Your task to perform on an android device: Toggle the flashlight Image 0: 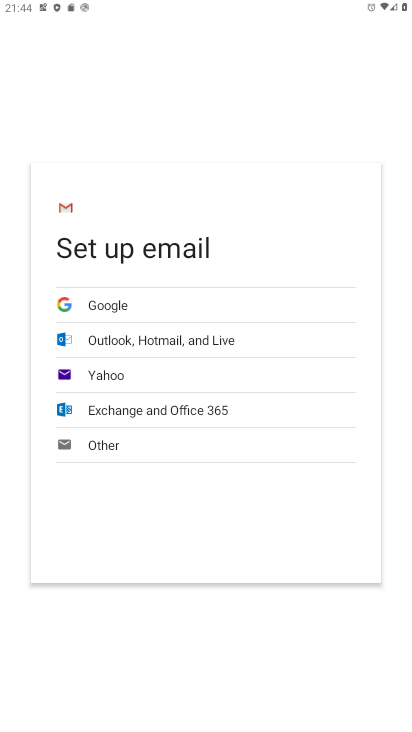
Step 0: drag from (211, 611) to (350, 87)
Your task to perform on an android device: Toggle the flashlight Image 1: 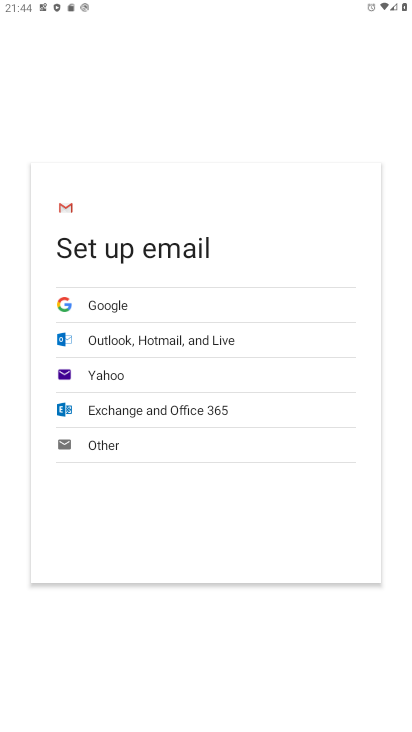
Step 1: press home button
Your task to perform on an android device: Toggle the flashlight Image 2: 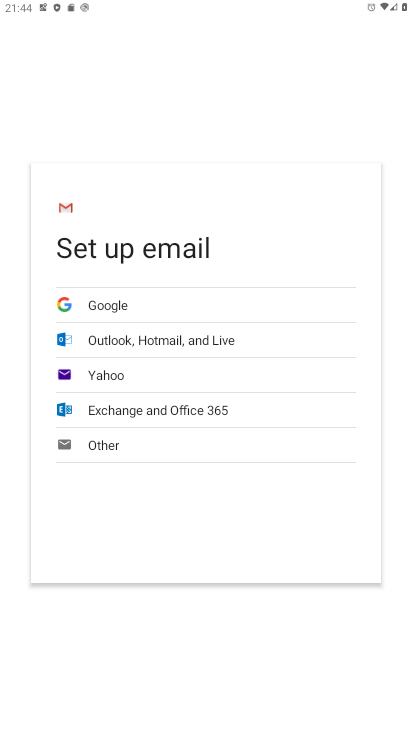
Step 2: press home button
Your task to perform on an android device: Toggle the flashlight Image 3: 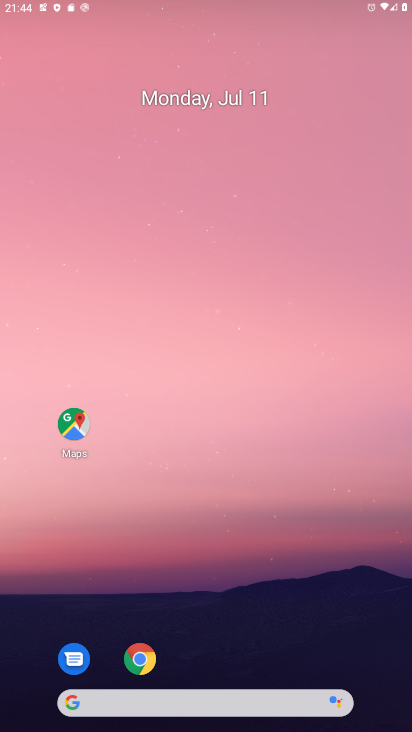
Step 3: drag from (176, 619) to (342, 10)
Your task to perform on an android device: Toggle the flashlight Image 4: 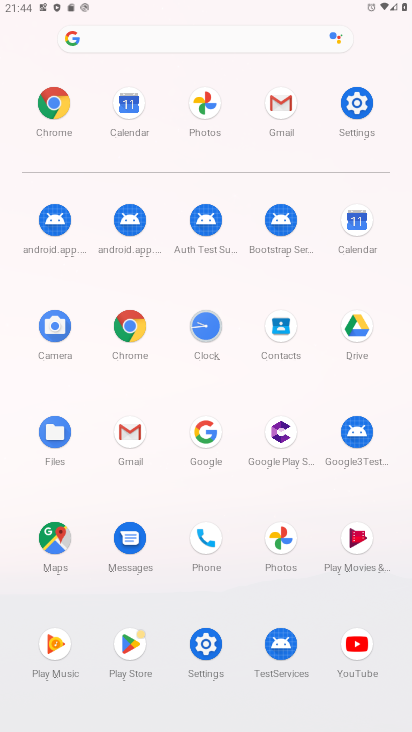
Step 4: click (201, 652)
Your task to perform on an android device: Toggle the flashlight Image 5: 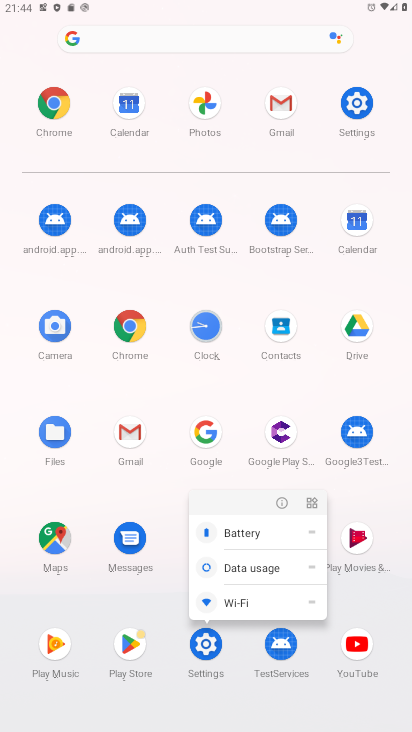
Step 5: click (282, 501)
Your task to perform on an android device: Toggle the flashlight Image 6: 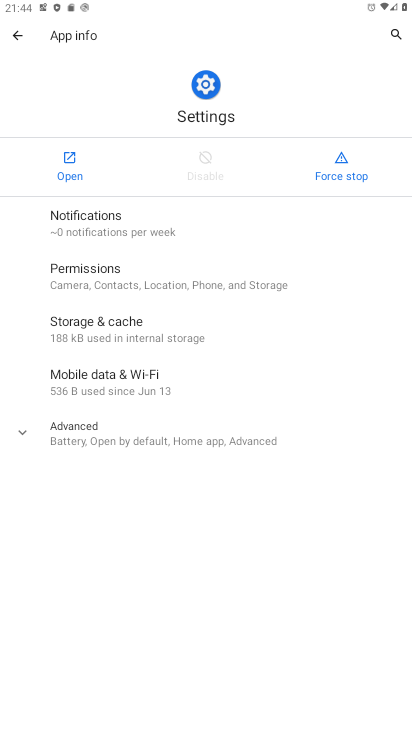
Step 6: click (72, 158)
Your task to perform on an android device: Toggle the flashlight Image 7: 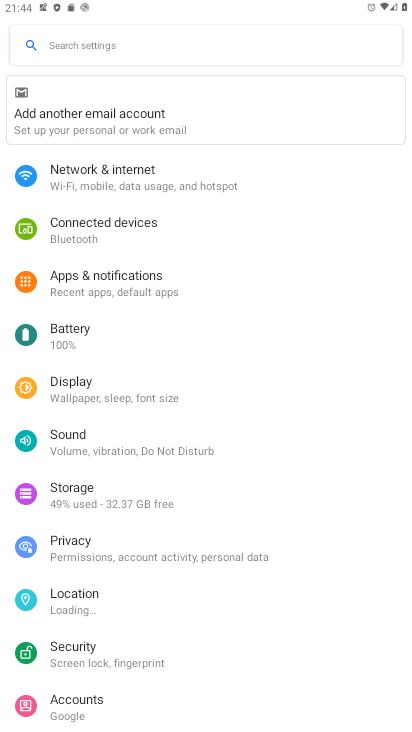
Step 7: drag from (248, 685) to (271, 238)
Your task to perform on an android device: Toggle the flashlight Image 8: 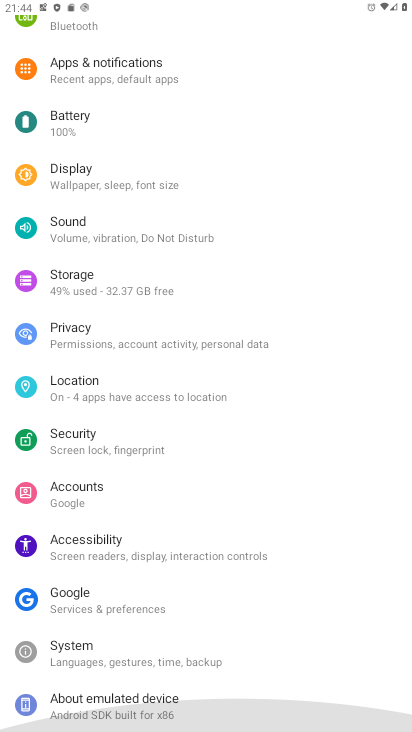
Step 8: drag from (278, 201) to (316, 724)
Your task to perform on an android device: Toggle the flashlight Image 9: 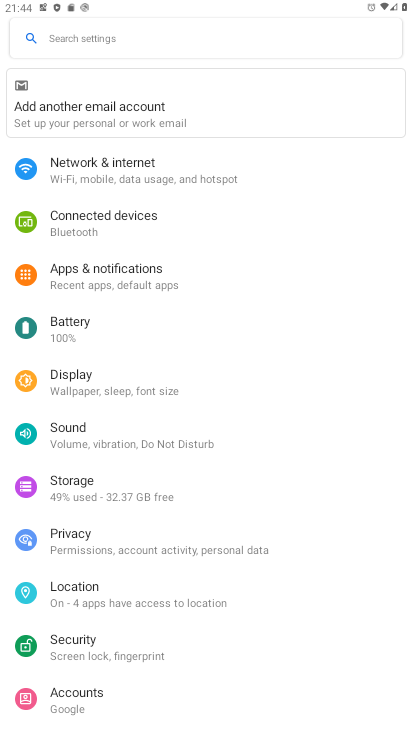
Step 9: click (169, 36)
Your task to perform on an android device: Toggle the flashlight Image 10: 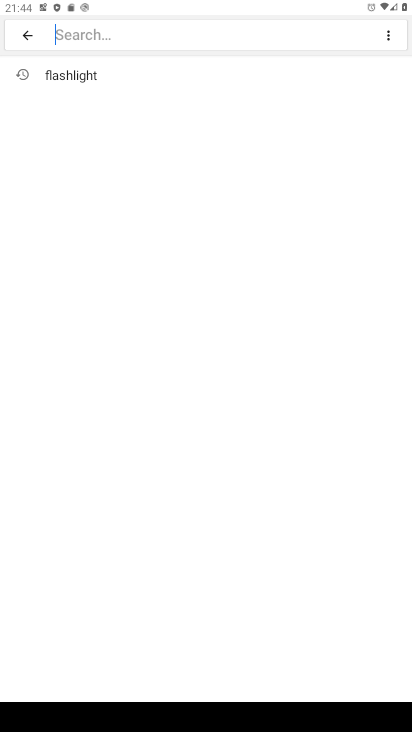
Step 10: click (80, 80)
Your task to perform on an android device: Toggle the flashlight Image 11: 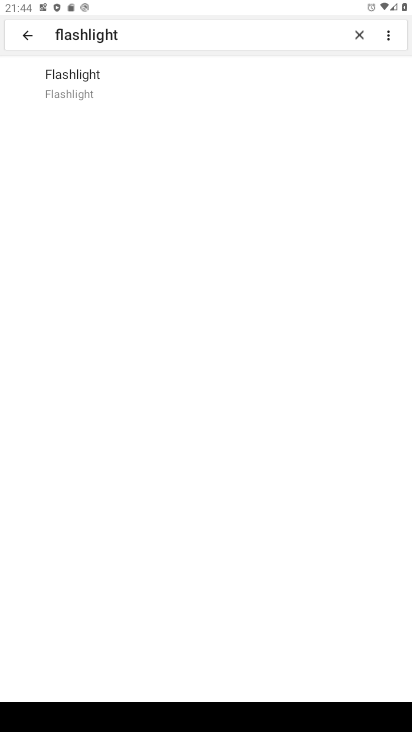
Step 11: click (94, 86)
Your task to perform on an android device: Toggle the flashlight Image 12: 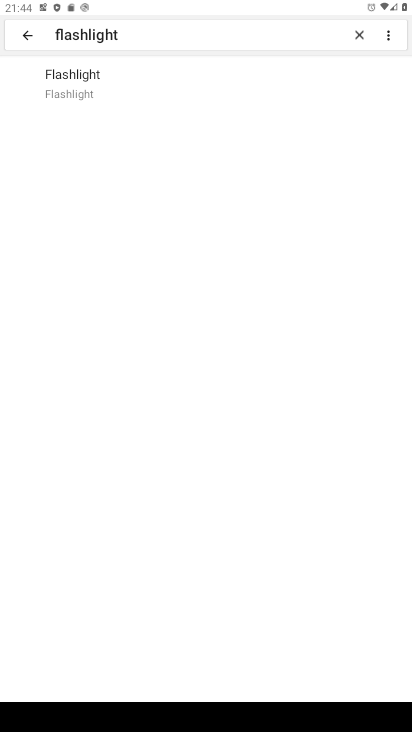
Step 12: task complete